Your task to perform on an android device: Go to accessibility settings Image 0: 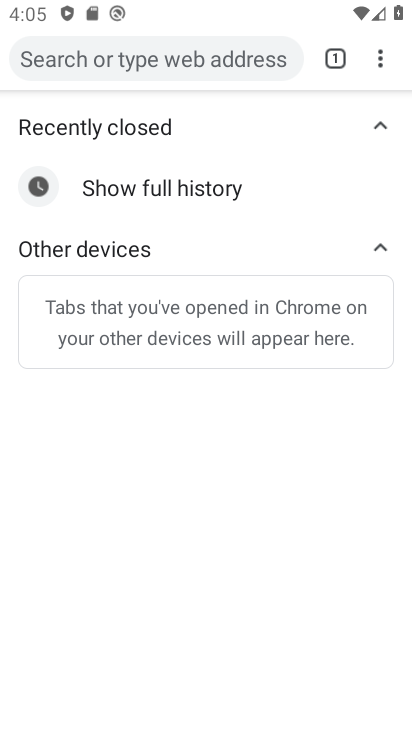
Step 0: press back button
Your task to perform on an android device: Go to accessibility settings Image 1: 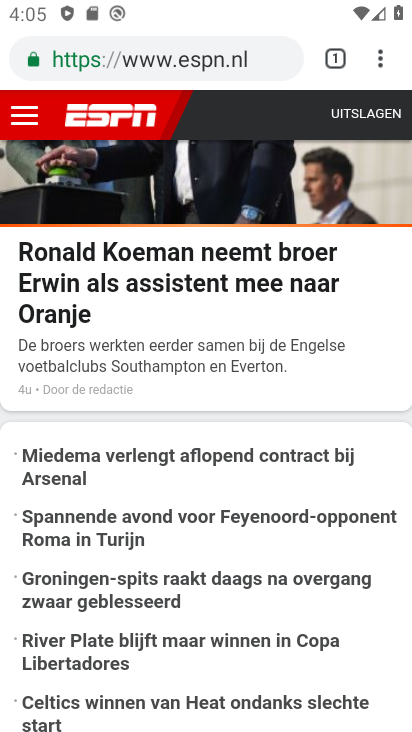
Step 1: press back button
Your task to perform on an android device: Go to accessibility settings Image 2: 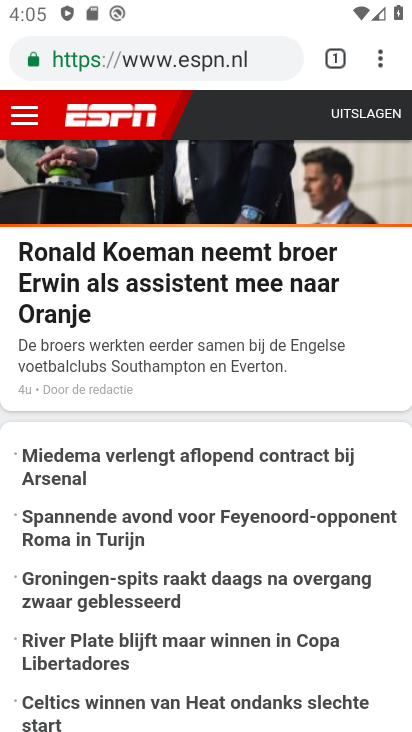
Step 2: press home button
Your task to perform on an android device: Go to accessibility settings Image 3: 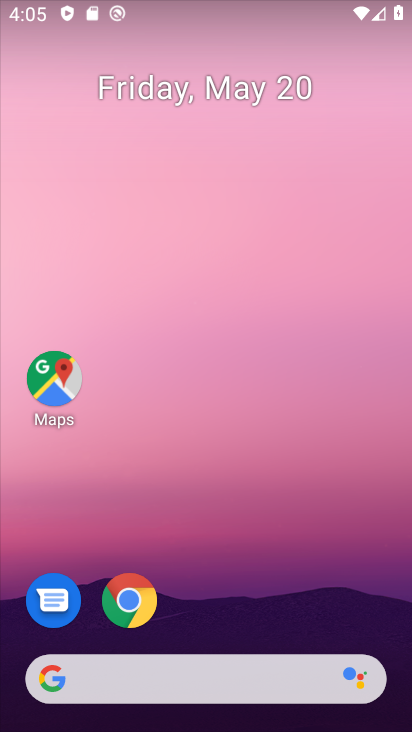
Step 3: drag from (203, 588) to (195, 10)
Your task to perform on an android device: Go to accessibility settings Image 4: 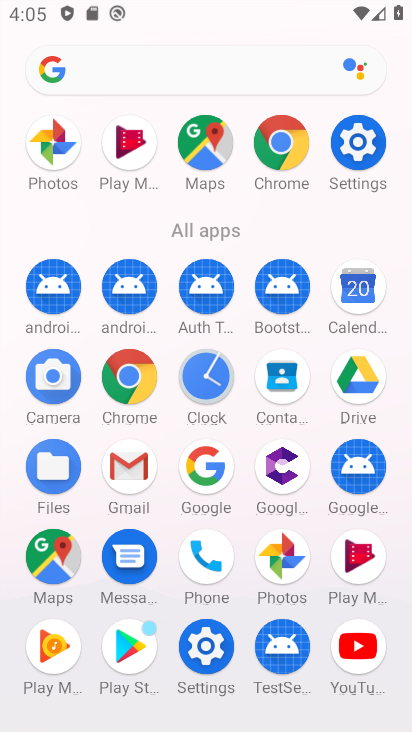
Step 4: click (201, 643)
Your task to perform on an android device: Go to accessibility settings Image 5: 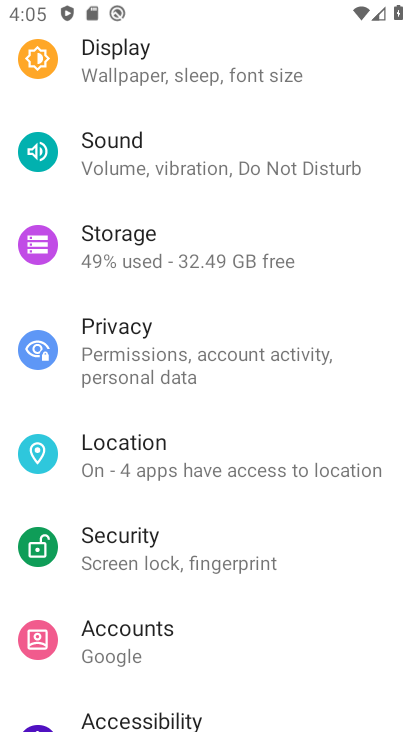
Step 5: drag from (245, 156) to (178, 598)
Your task to perform on an android device: Go to accessibility settings Image 6: 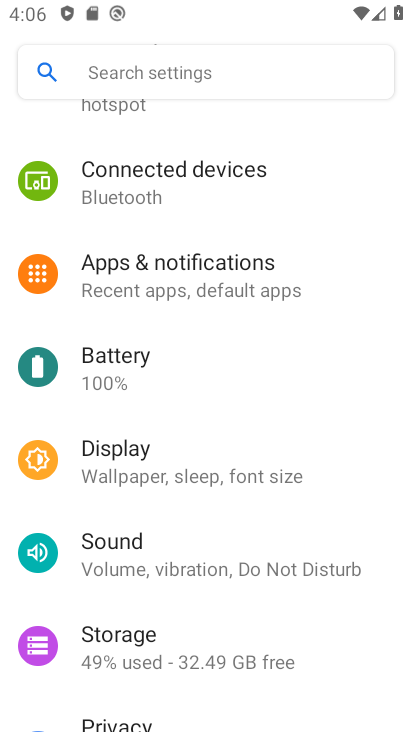
Step 6: drag from (241, 255) to (239, 706)
Your task to perform on an android device: Go to accessibility settings Image 7: 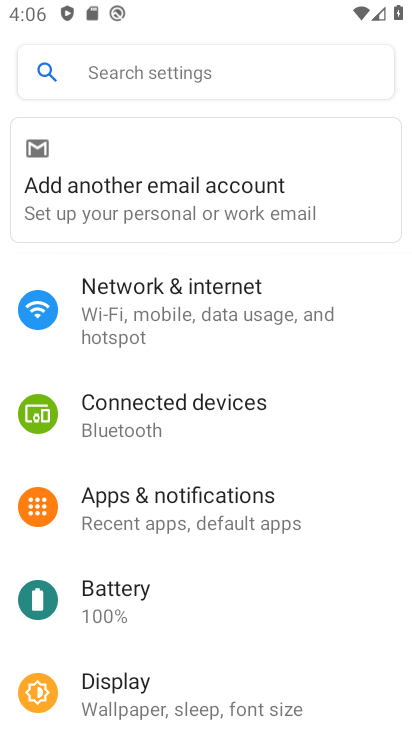
Step 7: drag from (236, 686) to (282, 231)
Your task to perform on an android device: Go to accessibility settings Image 8: 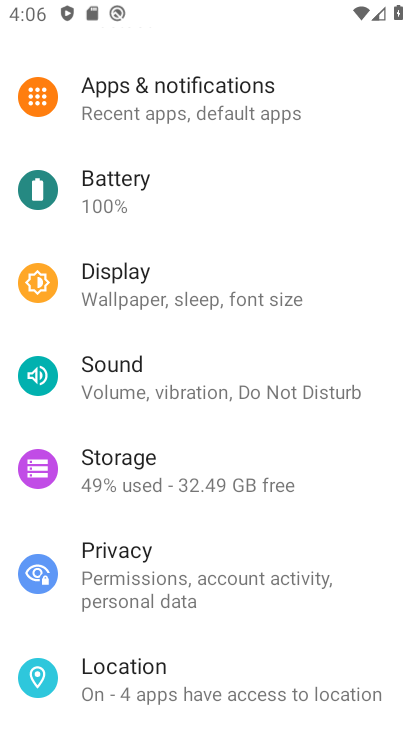
Step 8: drag from (208, 559) to (222, 218)
Your task to perform on an android device: Go to accessibility settings Image 9: 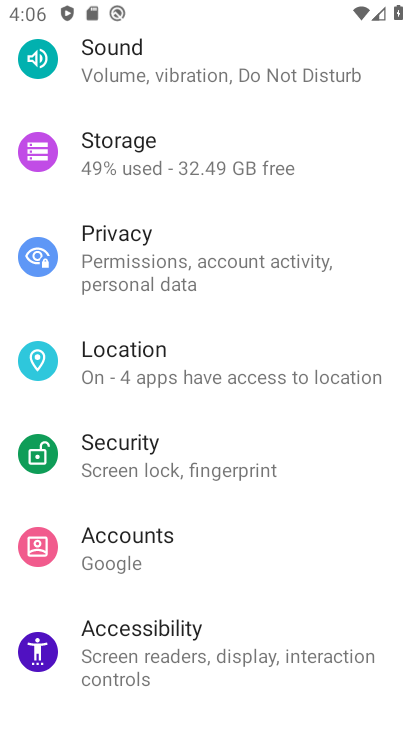
Step 9: click (180, 640)
Your task to perform on an android device: Go to accessibility settings Image 10: 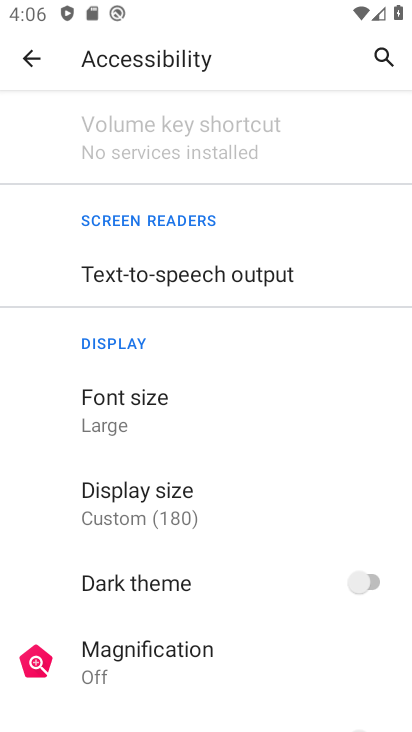
Step 10: task complete